Your task to perform on an android device: Go to Reddit.com Image 0: 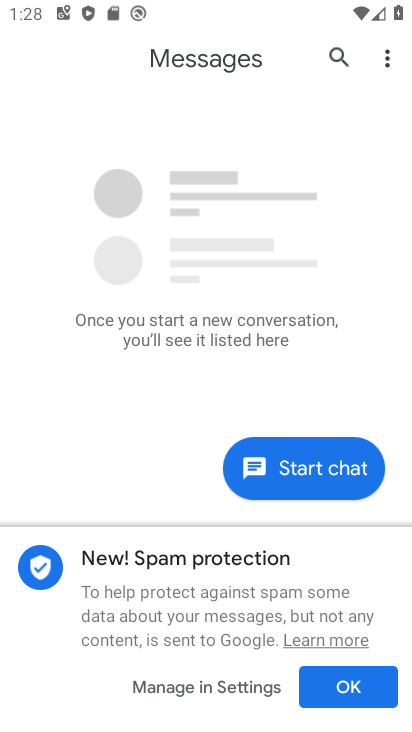
Step 0: press home button
Your task to perform on an android device: Go to Reddit.com Image 1: 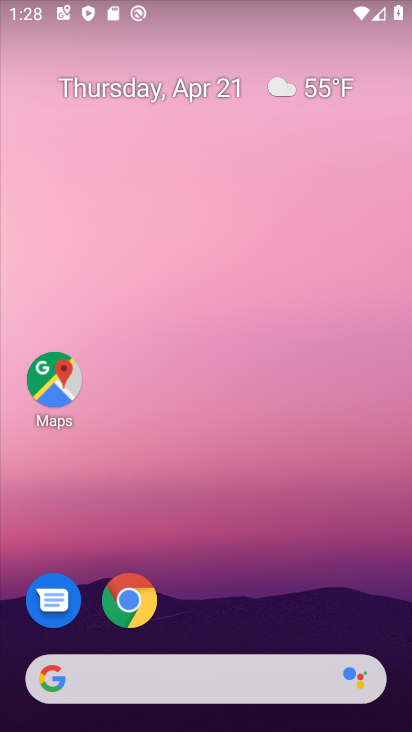
Step 1: click (131, 602)
Your task to perform on an android device: Go to Reddit.com Image 2: 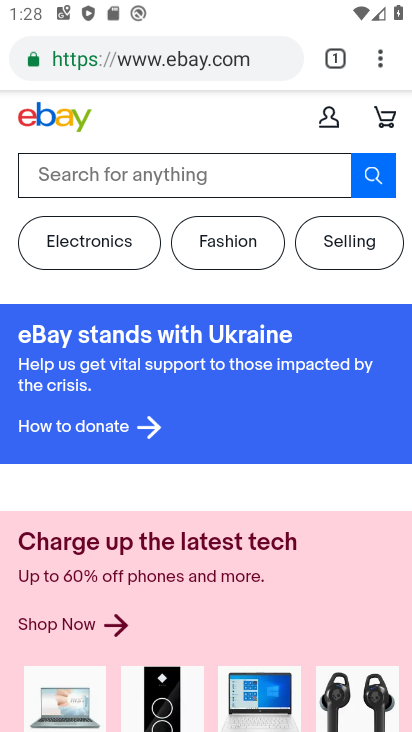
Step 2: click (117, 61)
Your task to perform on an android device: Go to Reddit.com Image 3: 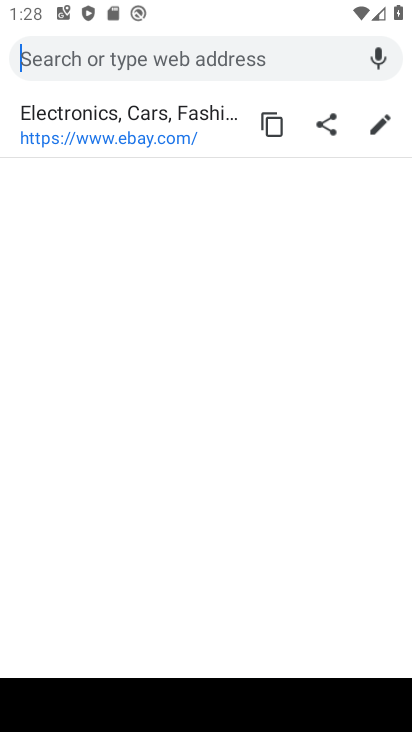
Step 3: type "reddit.com"
Your task to perform on an android device: Go to Reddit.com Image 4: 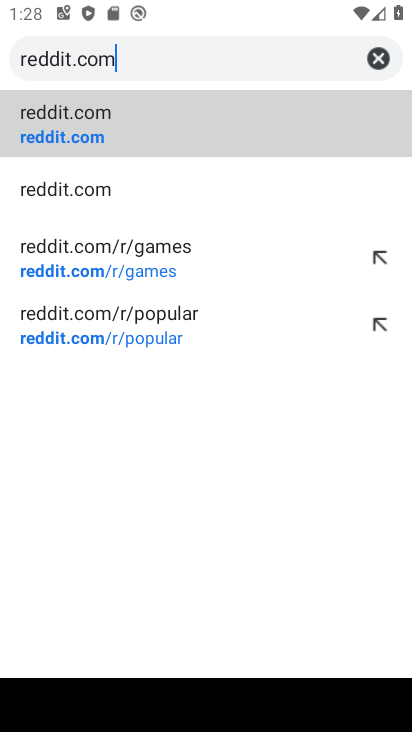
Step 4: click (46, 138)
Your task to perform on an android device: Go to Reddit.com Image 5: 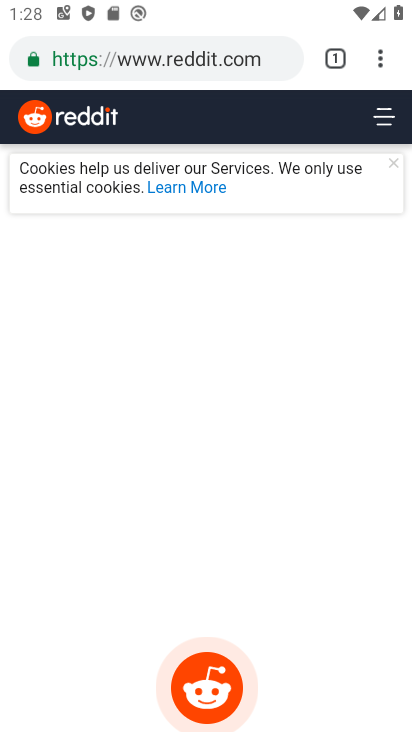
Step 5: task complete